Your task to perform on an android device: snooze an email in the gmail app Image 0: 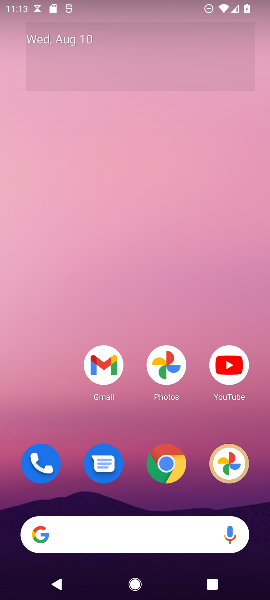
Step 0: click (97, 374)
Your task to perform on an android device: snooze an email in the gmail app Image 1: 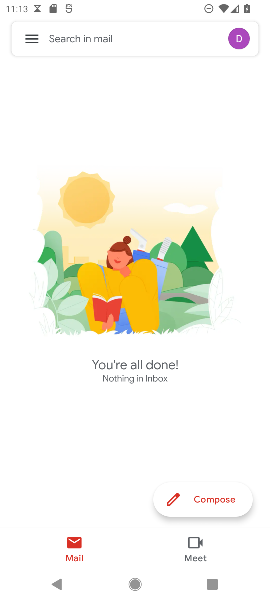
Step 1: click (31, 32)
Your task to perform on an android device: snooze an email in the gmail app Image 2: 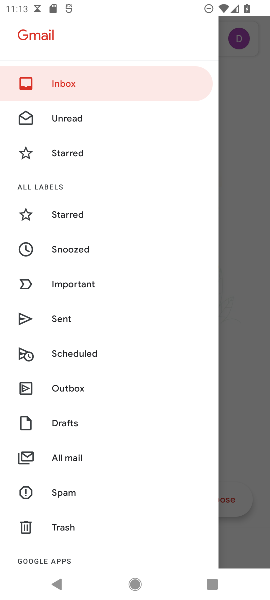
Step 2: click (64, 254)
Your task to perform on an android device: snooze an email in the gmail app Image 3: 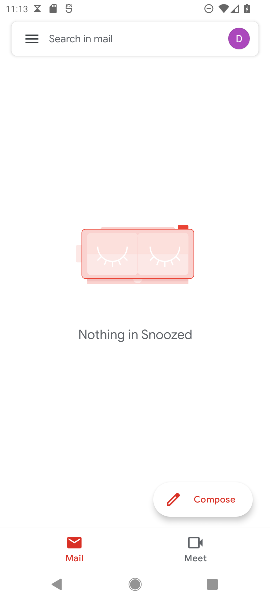
Step 3: task complete